Your task to perform on an android device: What is the recent news? Image 0: 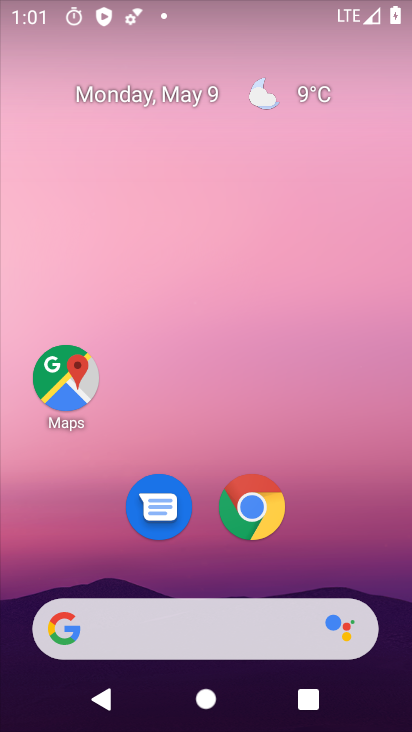
Step 0: drag from (3, 324) to (396, 454)
Your task to perform on an android device: What is the recent news? Image 1: 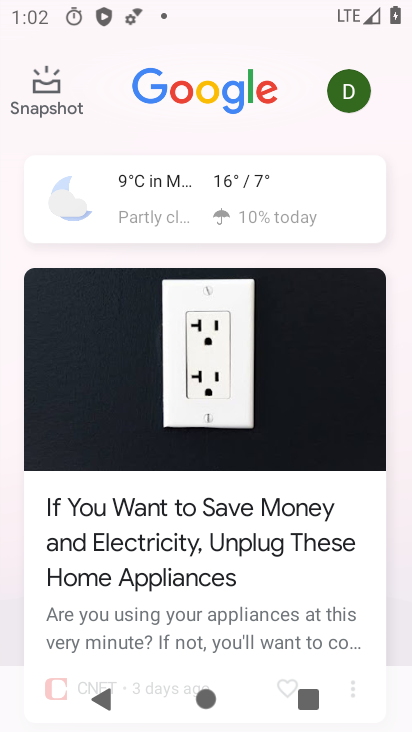
Step 1: task complete